Your task to perform on an android device: Go to network settings Image 0: 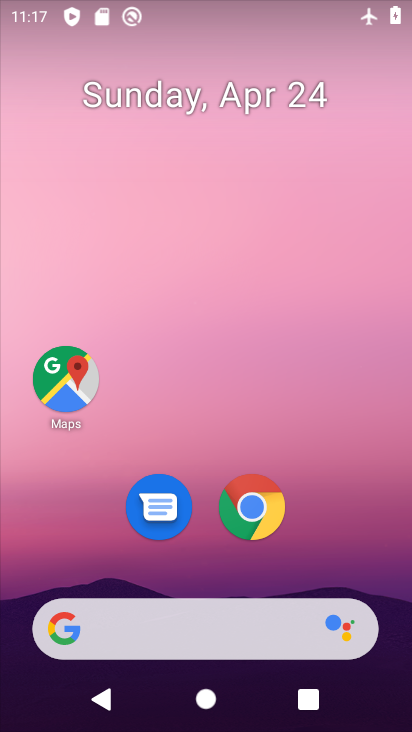
Step 0: drag from (345, 567) to (236, 27)
Your task to perform on an android device: Go to network settings Image 1: 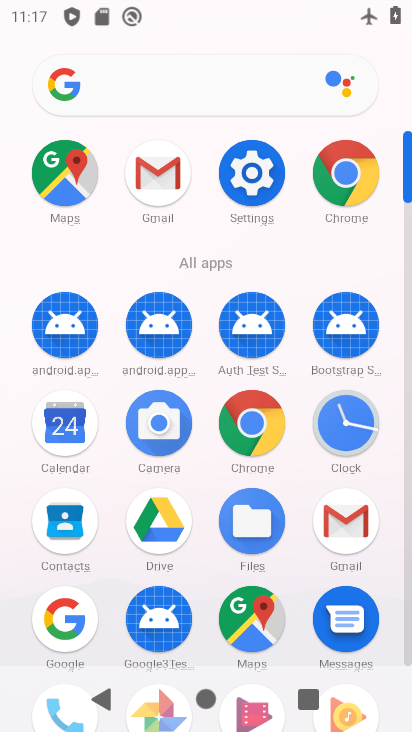
Step 1: drag from (9, 549) to (9, 237)
Your task to perform on an android device: Go to network settings Image 2: 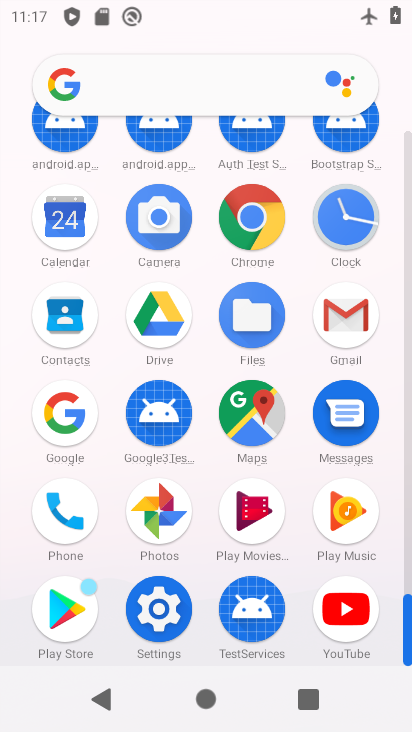
Step 2: click (158, 613)
Your task to perform on an android device: Go to network settings Image 3: 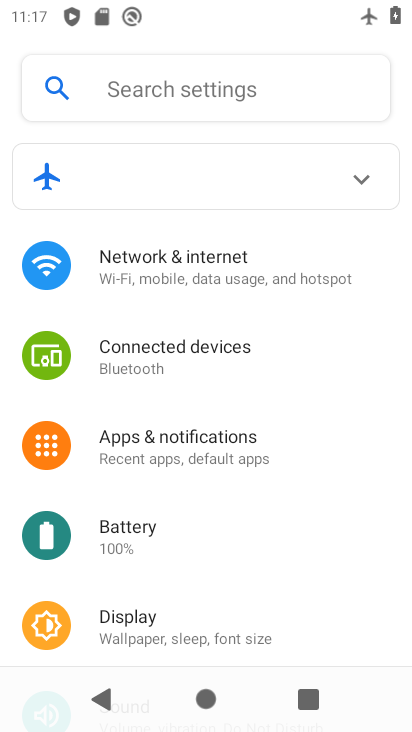
Step 3: click (187, 253)
Your task to perform on an android device: Go to network settings Image 4: 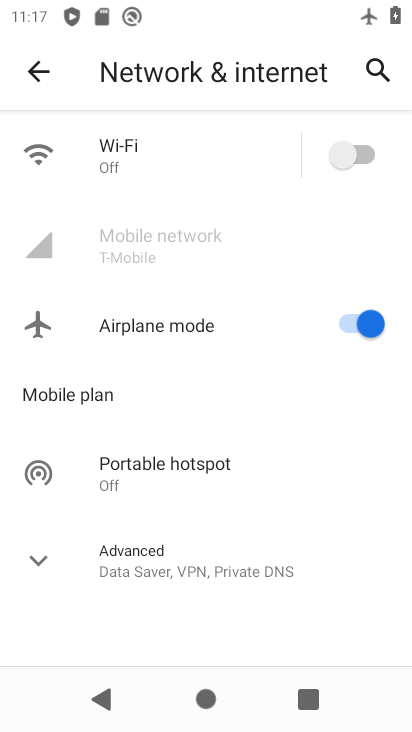
Step 4: click (33, 558)
Your task to perform on an android device: Go to network settings Image 5: 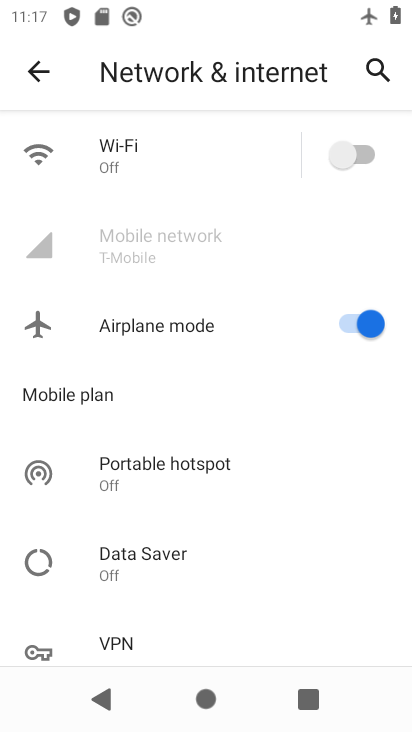
Step 5: task complete